Your task to perform on an android device: turn pop-ups off in chrome Image 0: 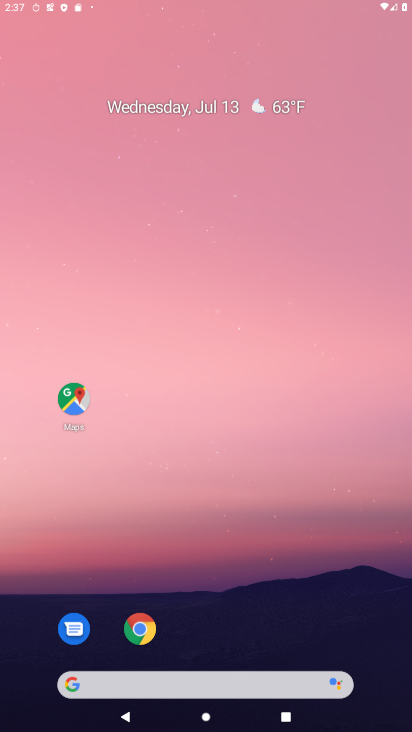
Step 0: click (242, 306)
Your task to perform on an android device: turn pop-ups off in chrome Image 1: 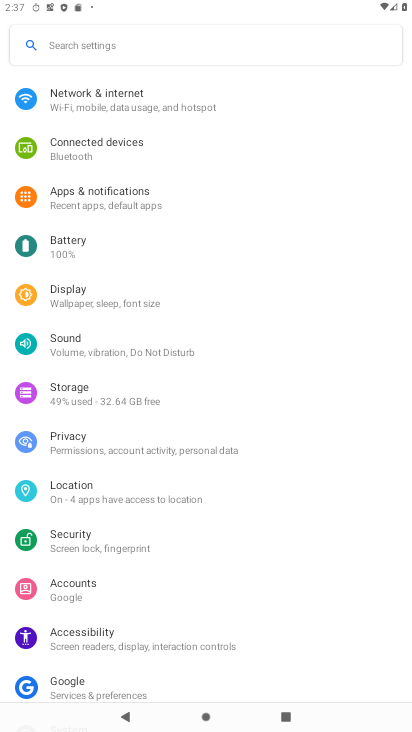
Step 1: drag from (171, 628) to (219, 134)
Your task to perform on an android device: turn pop-ups off in chrome Image 2: 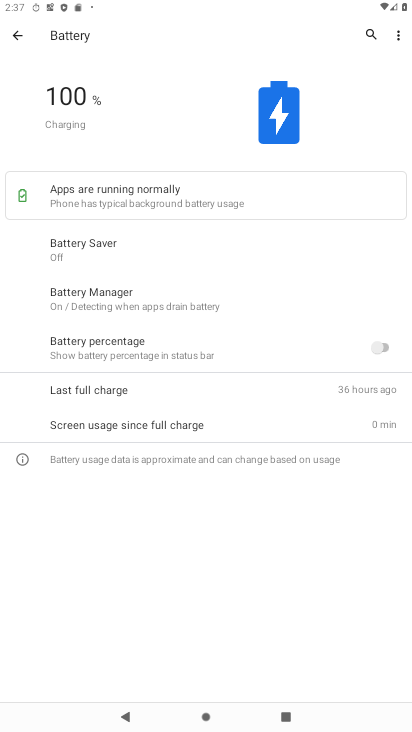
Step 2: drag from (158, 451) to (247, 165)
Your task to perform on an android device: turn pop-ups off in chrome Image 3: 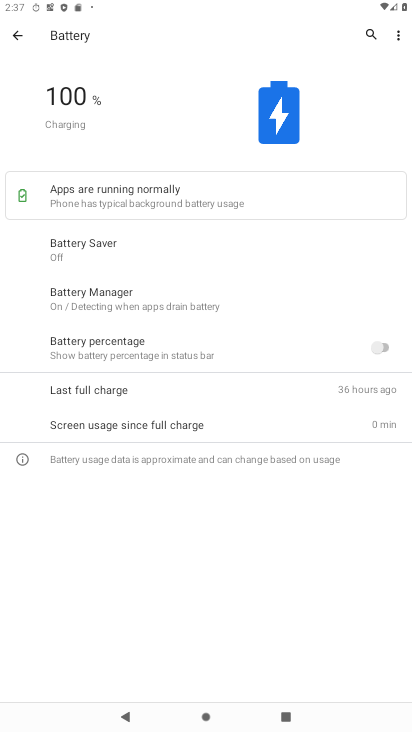
Step 3: drag from (119, 551) to (148, 239)
Your task to perform on an android device: turn pop-ups off in chrome Image 4: 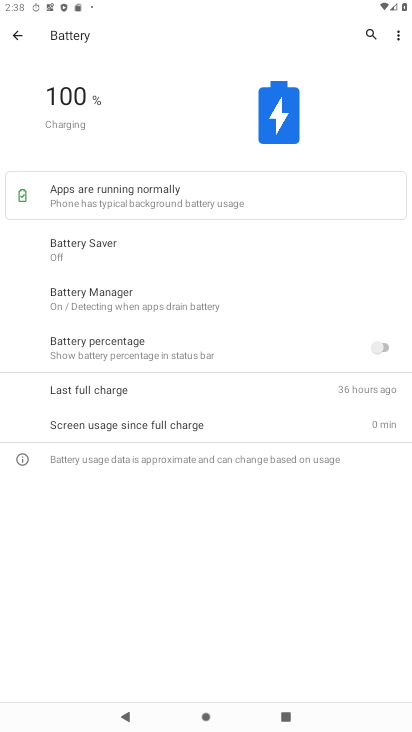
Step 4: press home button
Your task to perform on an android device: turn pop-ups off in chrome Image 5: 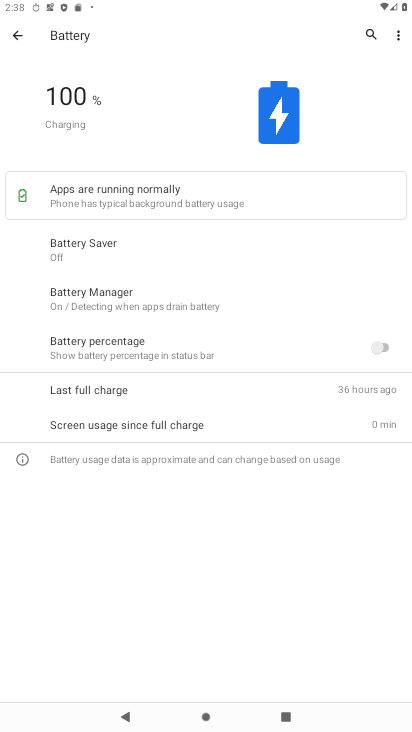
Step 5: drag from (68, 605) to (264, 17)
Your task to perform on an android device: turn pop-ups off in chrome Image 6: 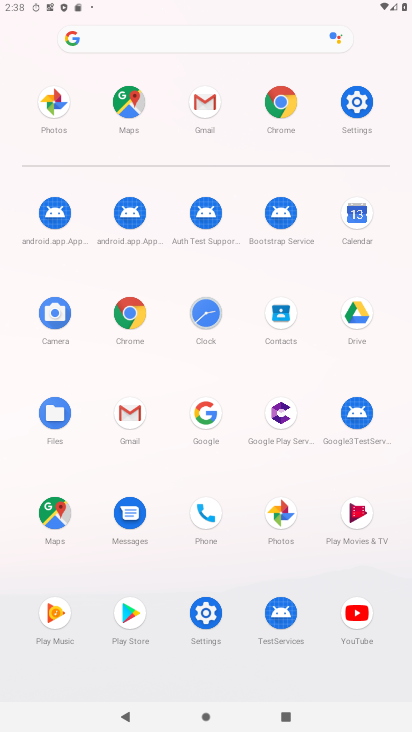
Step 6: click (127, 314)
Your task to perform on an android device: turn pop-ups off in chrome Image 7: 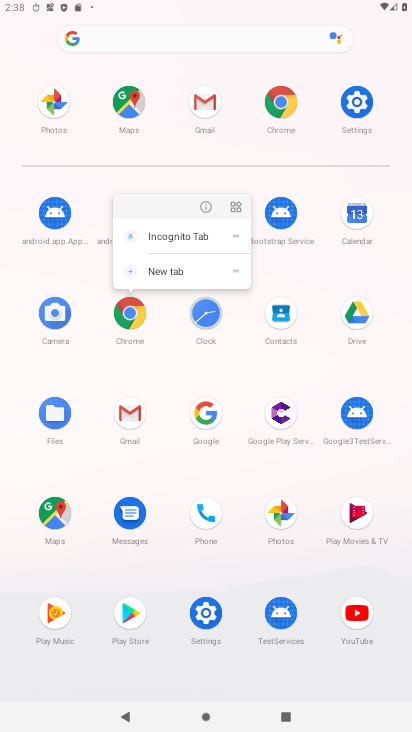
Step 7: click (200, 201)
Your task to perform on an android device: turn pop-ups off in chrome Image 8: 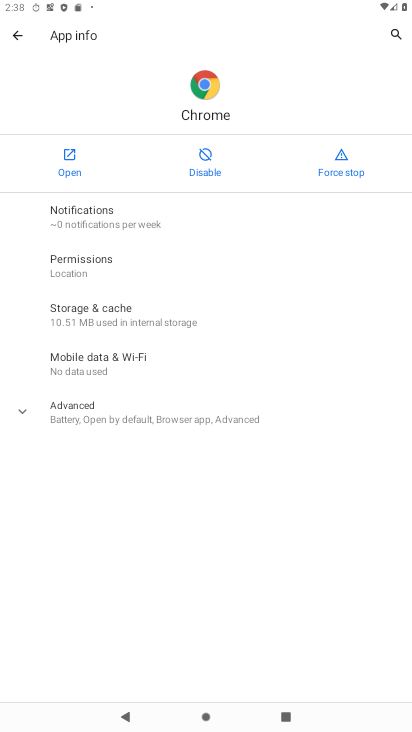
Step 8: click (72, 165)
Your task to perform on an android device: turn pop-ups off in chrome Image 9: 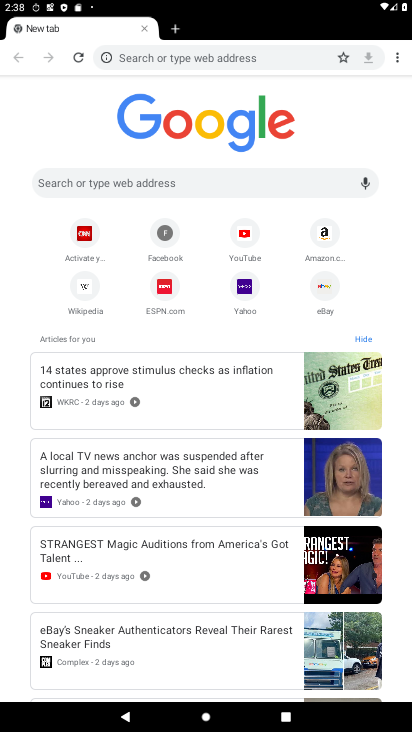
Step 9: click (396, 55)
Your task to perform on an android device: turn pop-ups off in chrome Image 10: 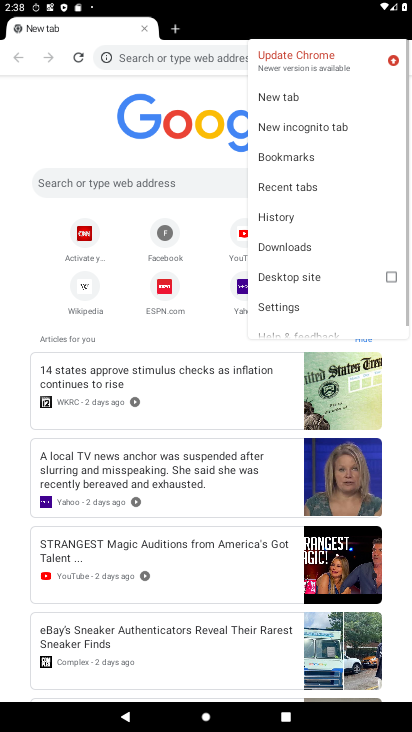
Step 10: click (300, 303)
Your task to perform on an android device: turn pop-ups off in chrome Image 11: 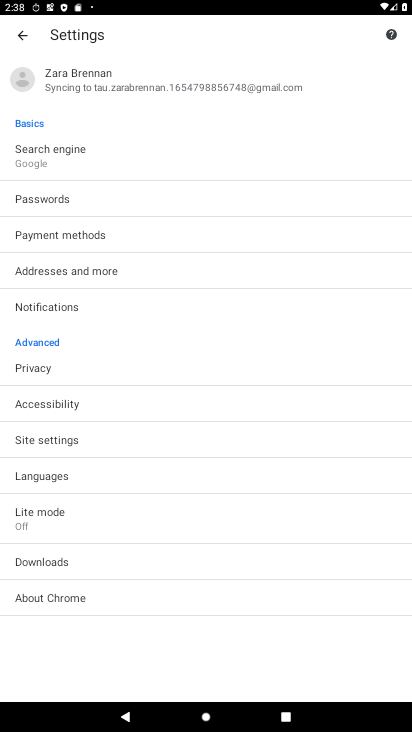
Step 11: drag from (95, 536) to (181, 87)
Your task to perform on an android device: turn pop-ups off in chrome Image 12: 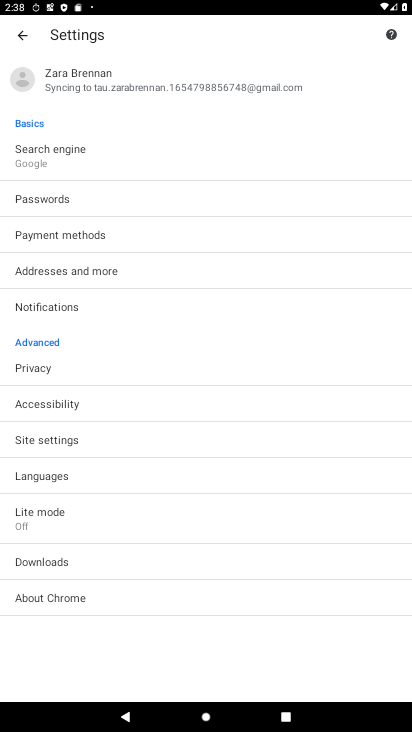
Step 12: click (102, 440)
Your task to perform on an android device: turn pop-ups off in chrome Image 13: 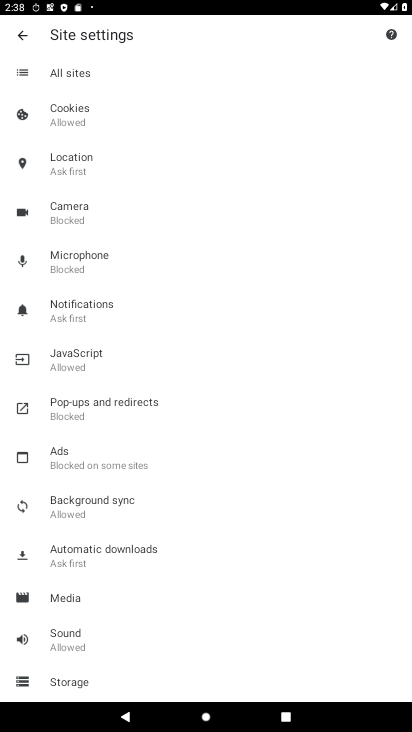
Step 13: click (119, 409)
Your task to perform on an android device: turn pop-ups off in chrome Image 14: 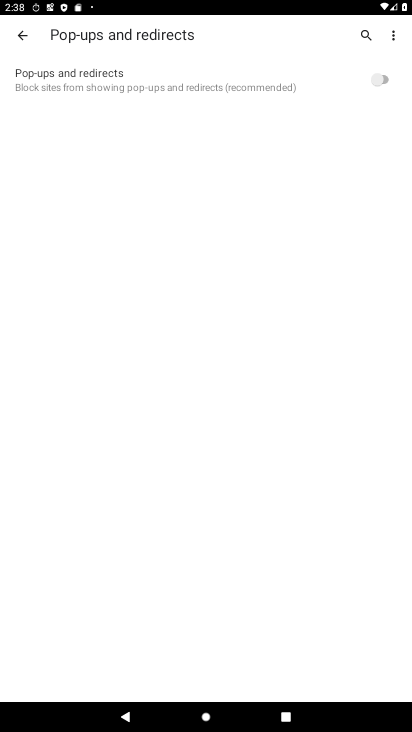
Step 14: click (358, 84)
Your task to perform on an android device: turn pop-ups off in chrome Image 15: 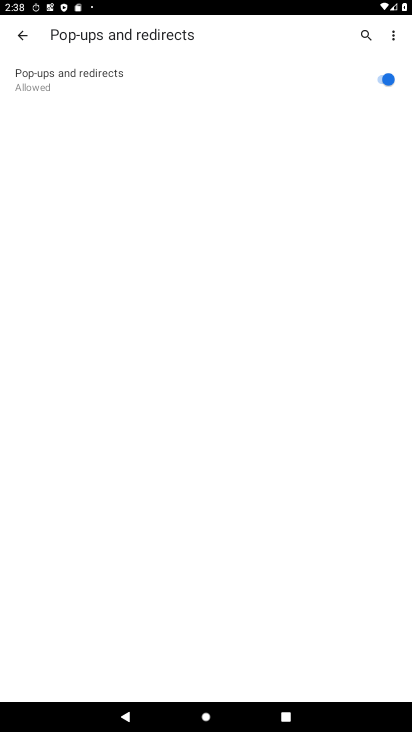
Step 15: task complete